Your task to perform on an android device: turn vacation reply on in the gmail app Image 0: 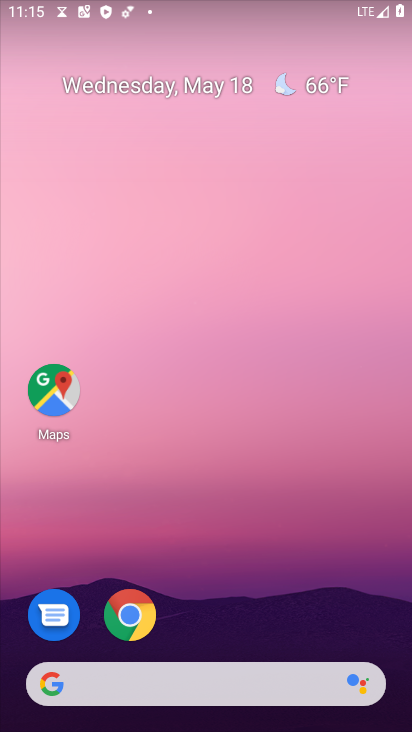
Step 0: drag from (237, 544) to (195, 51)
Your task to perform on an android device: turn vacation reply on in the gmail app Image 1: 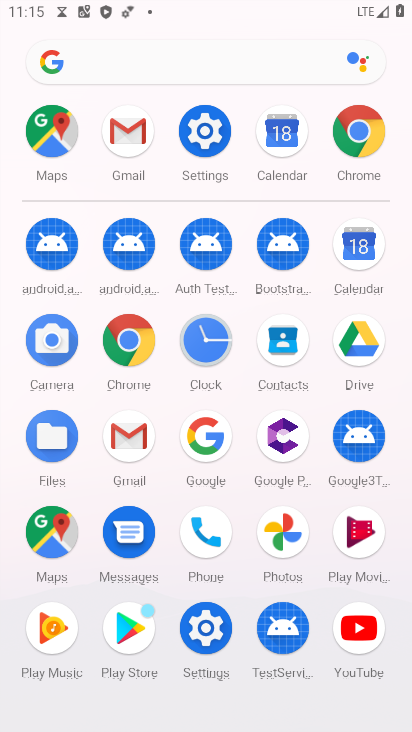
Step 1: drag from (5, 559) to (12, 207)
Your task to perform on an android device: turn vacation reply on in the gmail app Image 2: 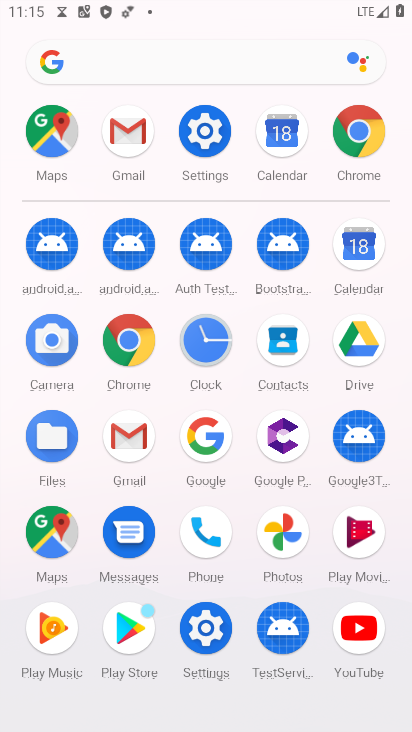
Step 2: click (123, 126)
Your task to perform on an android device: turn vacation reply on in the gmail app Image 3: 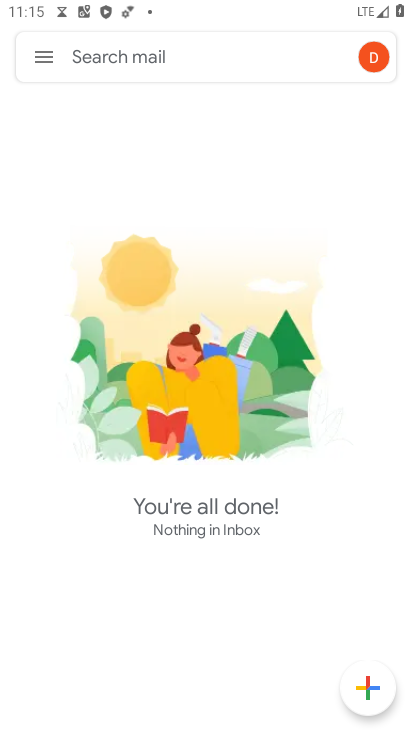
Step 3: click (45, 57)
Your task to perform on an android device: turn vacation reply on in the gmail app Image 4: 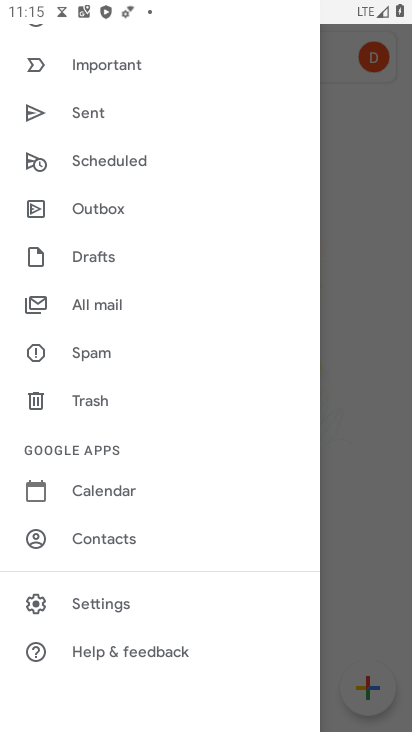
Step 4: click (112, 603)
Your task to perform on an android device: turn vacation reply on in the gmail app Image 5: 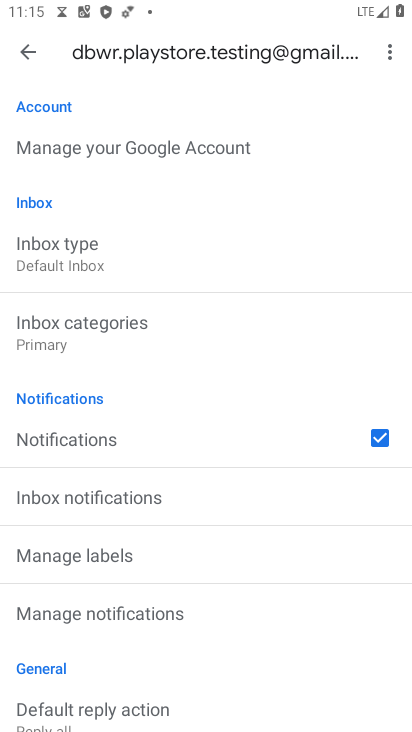
Step 5: task complete